Your task to perform on an android device: What's the weather going to be tomorrow? Image 0: 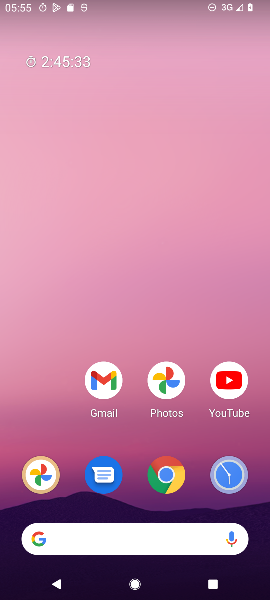
Step 0: click (117, 534)
Your task to perform on an android device: What's the weather going to be tomorrow? Image 1: 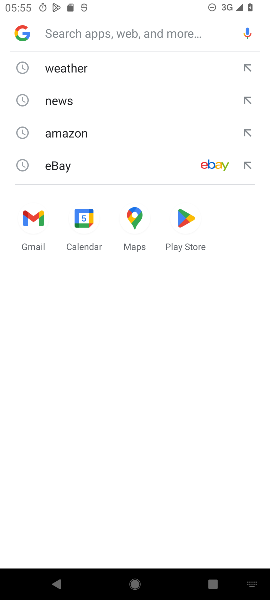
Step 1: click (76, 73)
Your task to perform on an android device: What's the weather going to be tomorrow? Image 2: 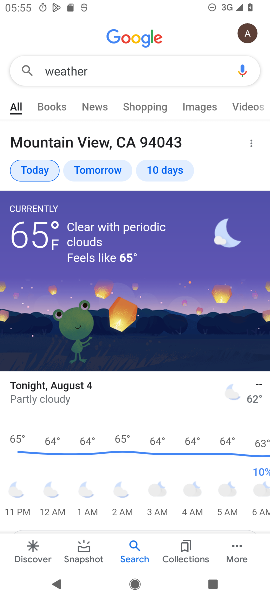
Step 2: click (100, 173)
Your task to perform on an android device: What's the weather going to be tomorrow? Image 3: 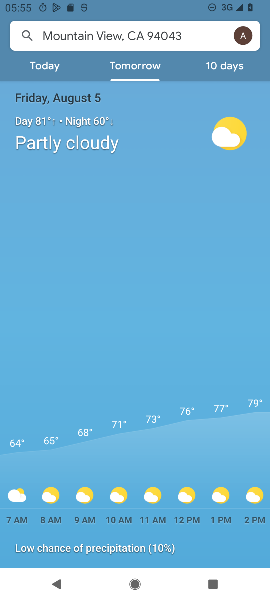
Step 3: task complete